Your task to perform on an android device: change the clock style Image 0: 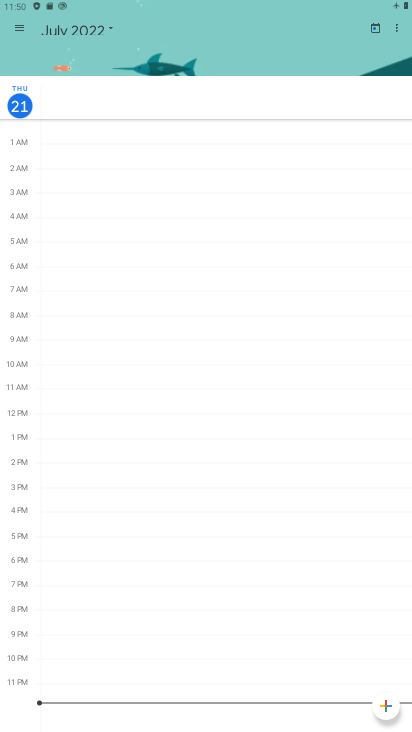
Step 0: drag from (249, 590) to (294, 331)
Your task to perform on an android device: change the clock style Image 1: 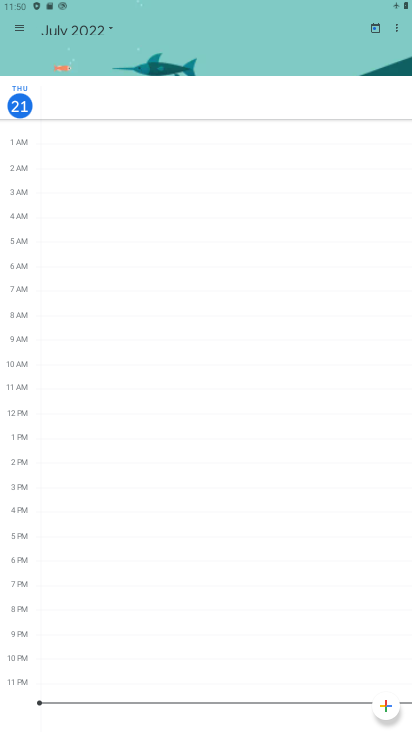
Step 1: press home button
Your task to perform on an android device: change the clock style Image 2: 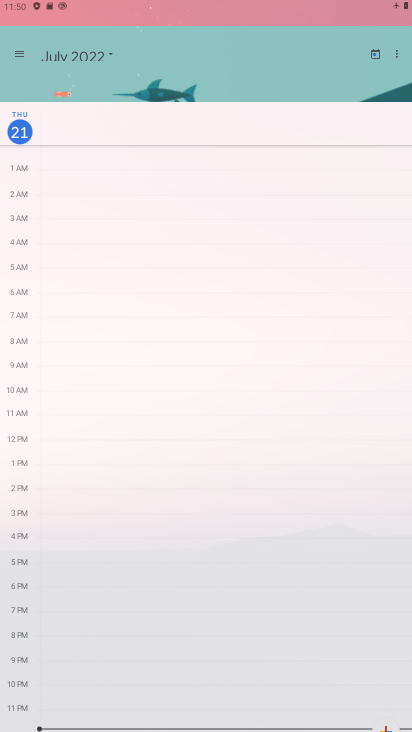
Step 2: drag from (223, 616) to (287, 106)
Your task to perform on an android device: change the clock style Image 3: 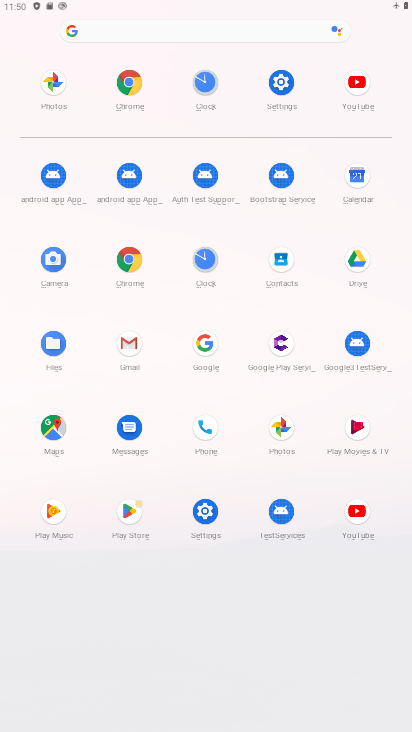
Step 3: click (201, 266)
Your task to perform on an android device: change the clock style Image 4: 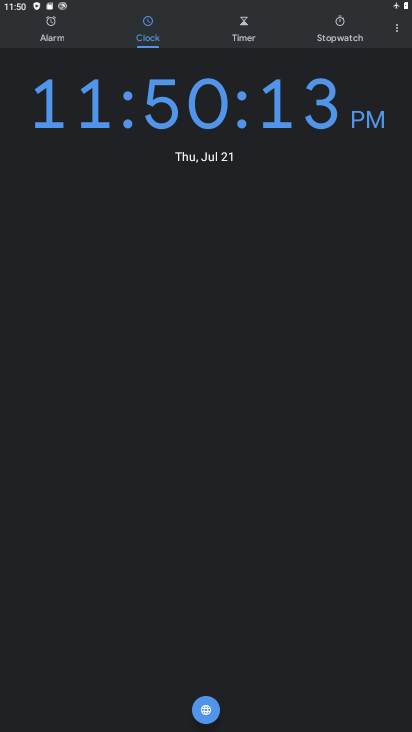
Step 4: drag from (394, 26) to (335, 60)
Your task to perform on an android device: change the clock style Image 5: 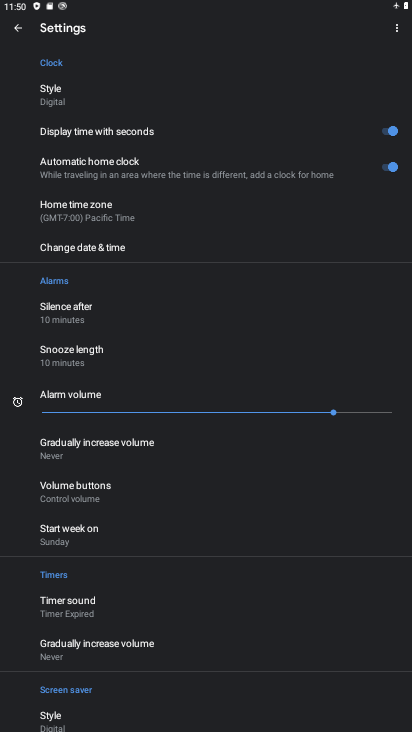
Step 5: click (76, 78)
Your task to perform on an android device: change the clock style Image 6: 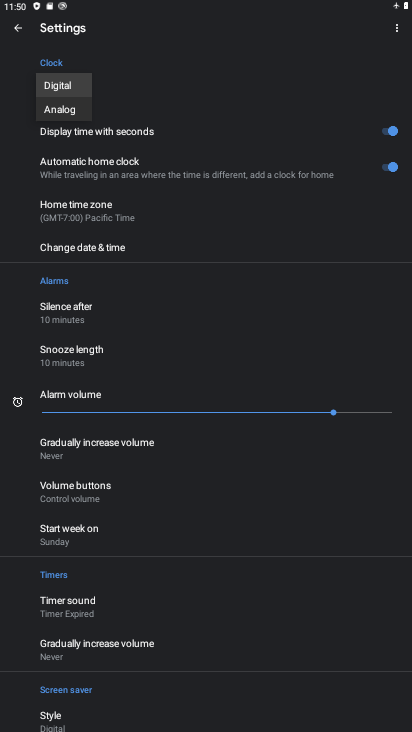
Step 6: click (71, 113)
Your task to perform on an android device: change the clock style Image 7: 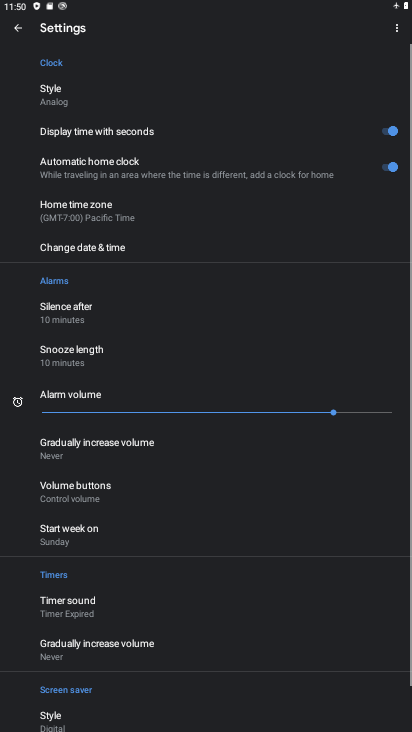
Step 7: task complete